Your task to perform on an android device: Show me popular videos on Youtube Image 0: 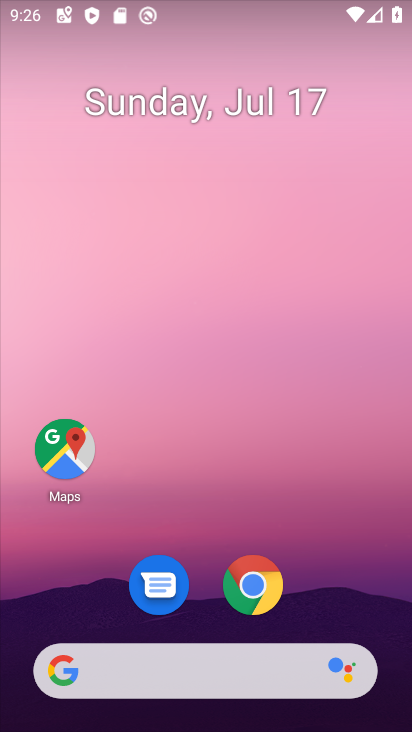
Step 0: drag from (327, 571) to (299, 20)
Your task to perform on an android device: Show me popular videos on Youtube Image 1: 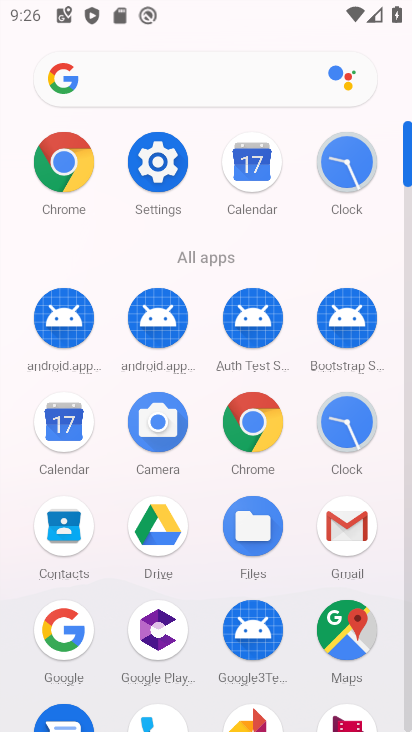
Step 1: drag from (214, 563) to (217, 57)
Your task to perform on an android device: Show me popular videos on Youtube Image 2: 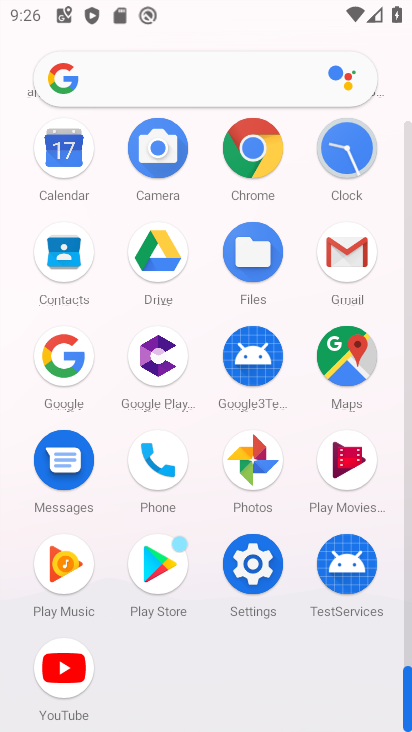
Step 2: click (81, 666)
Your task to perform on an android device: Show me popular videos on Youtube Image 3: 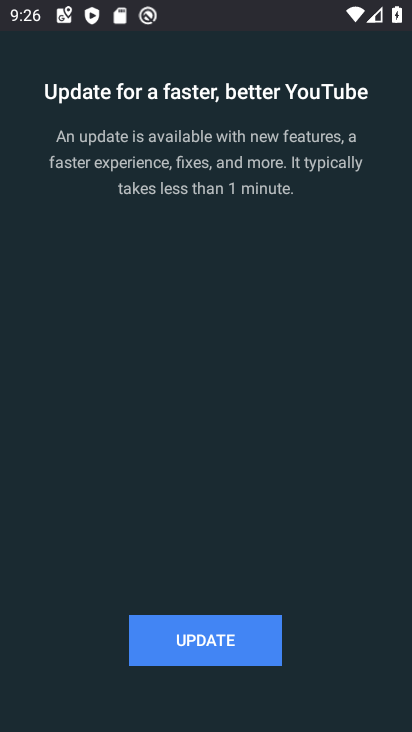
Step 3: click (261, 636)
Your task to perform on an android device: Show me popular videos on Youtube Image 4: 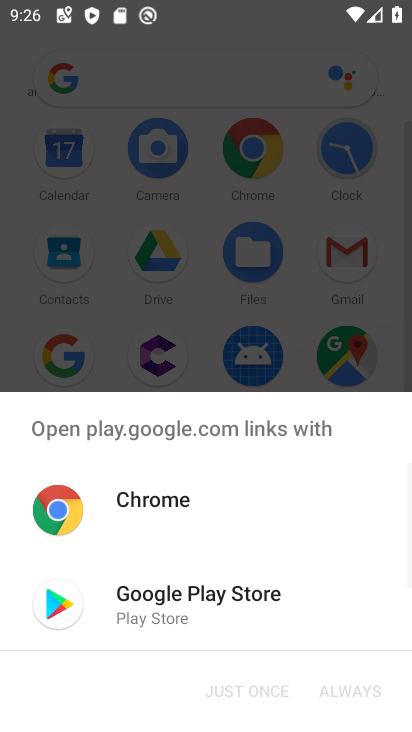
Step 4: click (192, 608)
Your task to perform on an android device: Show me popular videos on Youtube Image 5: 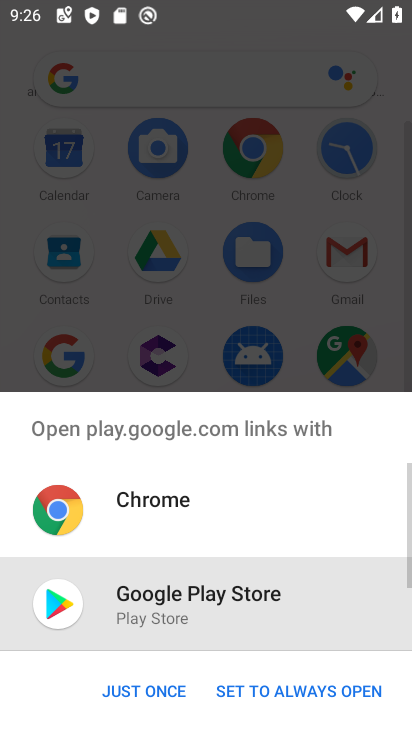
Step 5: click (167, 683)
Your task to perform on an android device: Show me popular videos on Youtube Image 6: 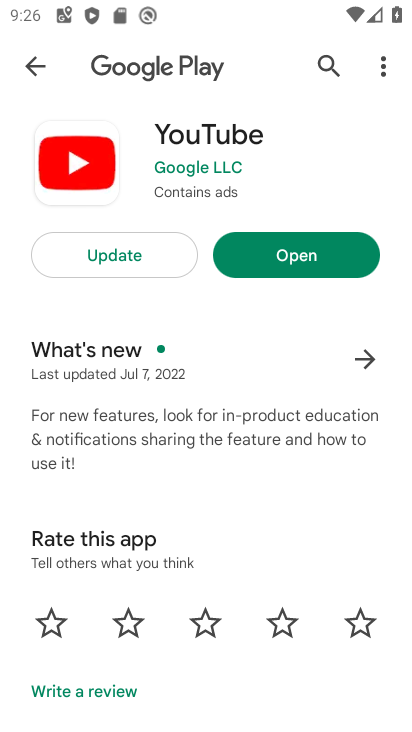
Step 6: click (112, 245)
Your task to perform on an android device: Show me popular videos on Youtube Image 7: 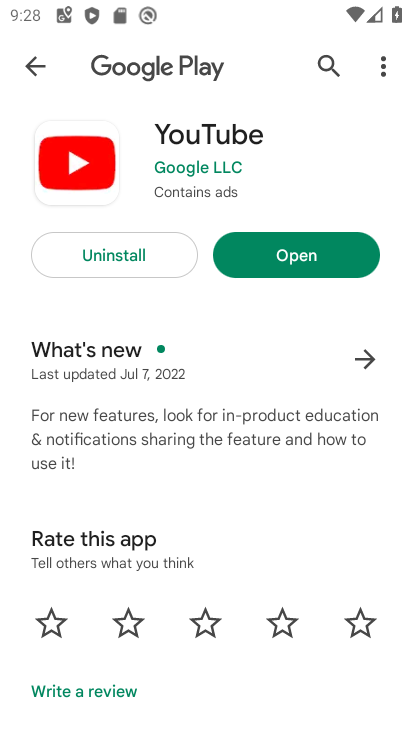
Step 7: click (350, 254)
Your task to perform on an android device: Show me popular videos on Youtube Image 8: 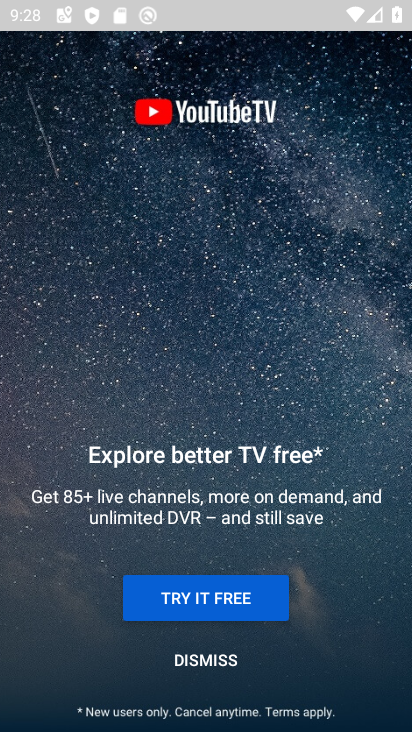
Step 8: click (220, 666)
Your task to perform on an android device: Show me popular videos on Youtube Image 9: 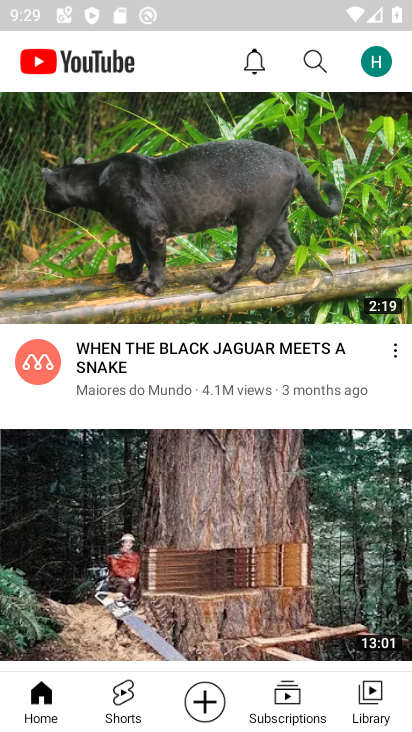
Step 9: click (310, 52)
Your task to perform on an android device: Show me popular videos on Youtube Image 10: 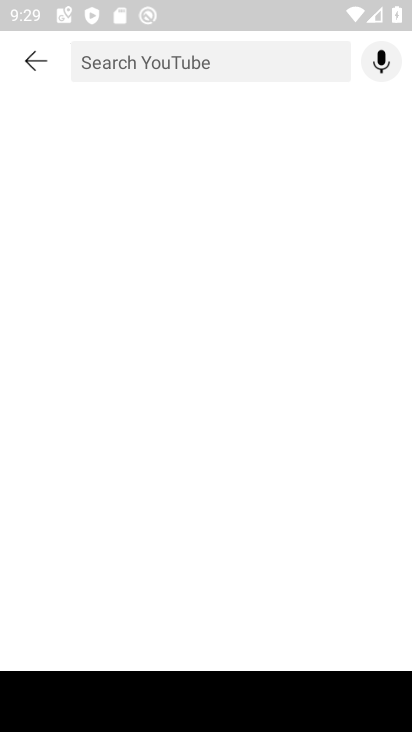
Step 10: type "popular videos"
Your task to perform on an android device: Show me popular videos on Youtube Image 11: 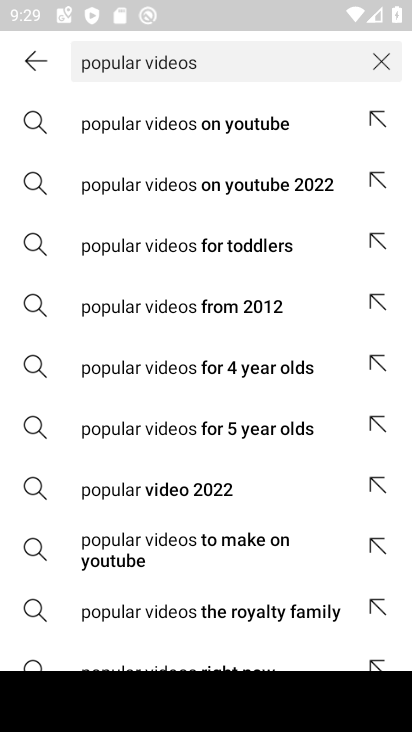
Step 11: click (219, 119)
Your task to perform on an android device: Show me popular videos on Youtube Image 12: 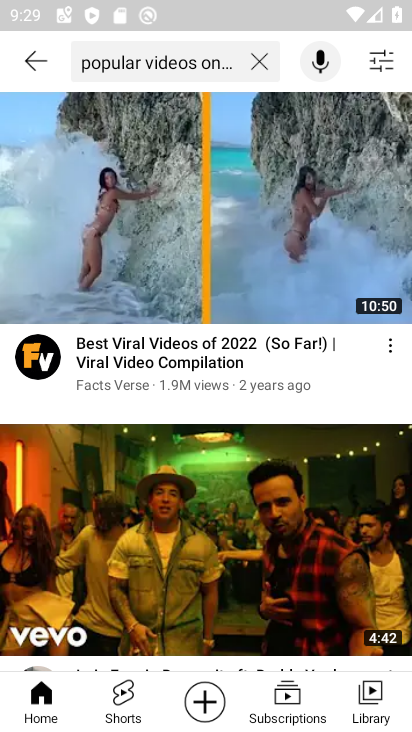
Step 12: click (147, 253)
Your task to perform on an android device: Show me popular videos on Youtube Image 13: 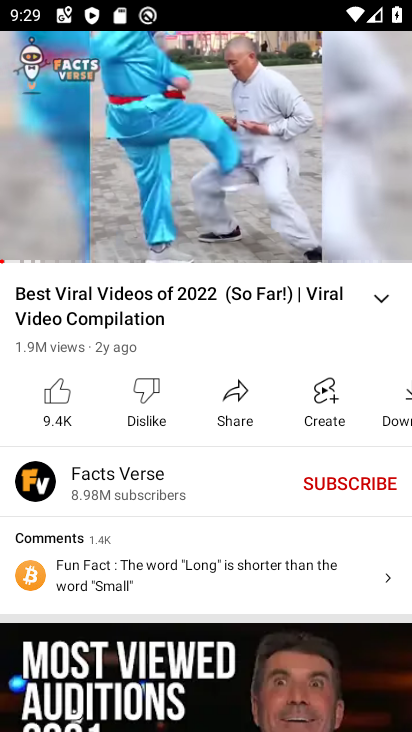
Step 13: task complete